Your task to perform on an android device: Open CNN.com Image 0: 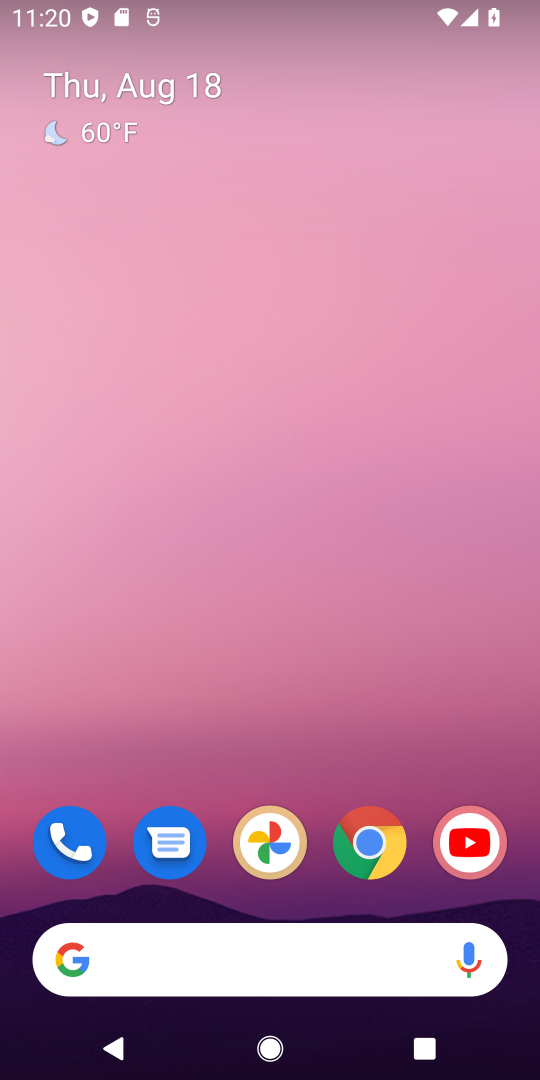
Step 0: click (234, 919)
Your task to perform on an android device: Open CNN.com Image 1: 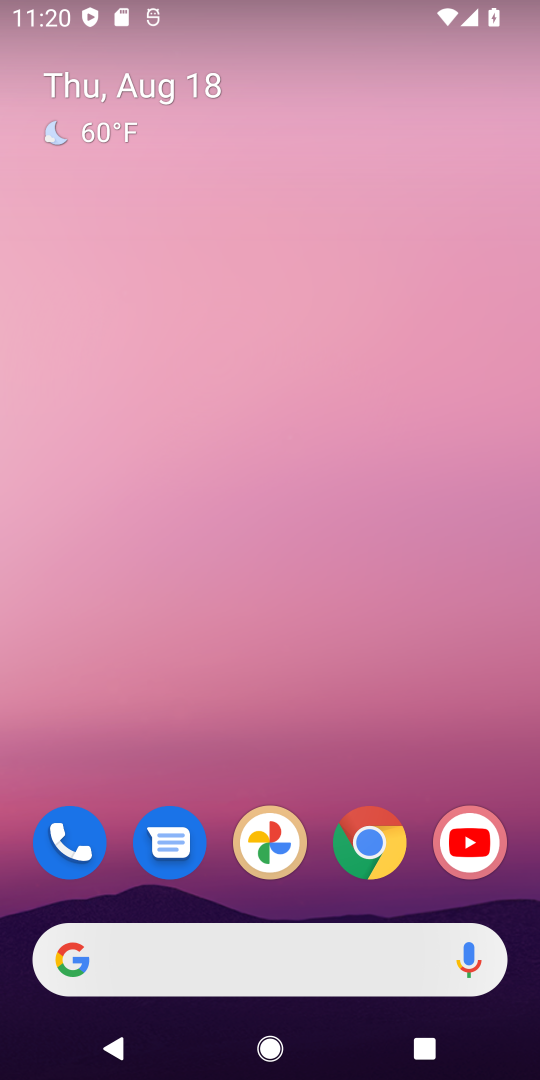
Step 1: click (232, 978)
Your task to perform on an android device: Open CNN.com Image 2: 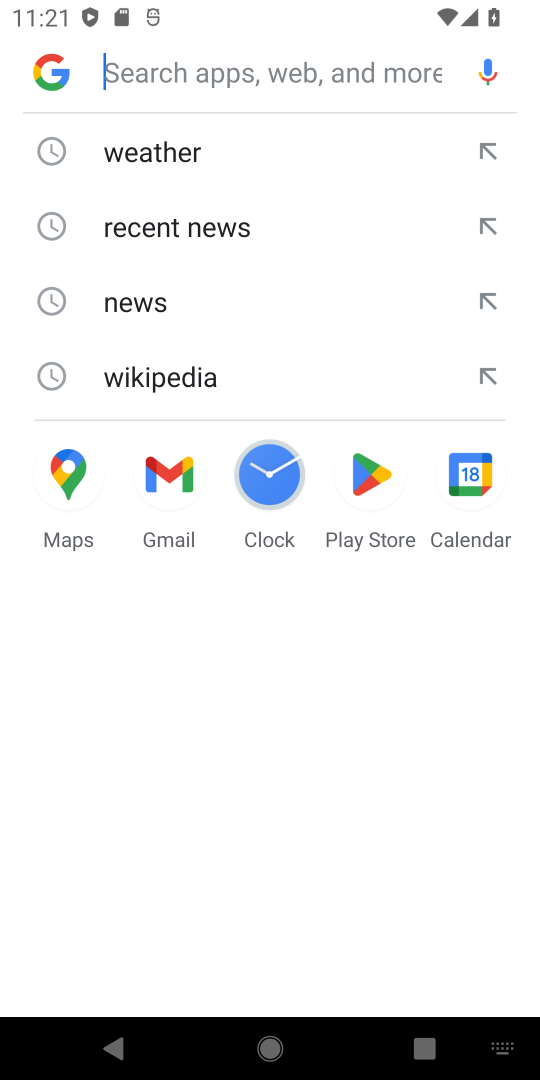
Step 2: type "cnn"
Your task to perform on an android device: Open CNN.com Image 3: 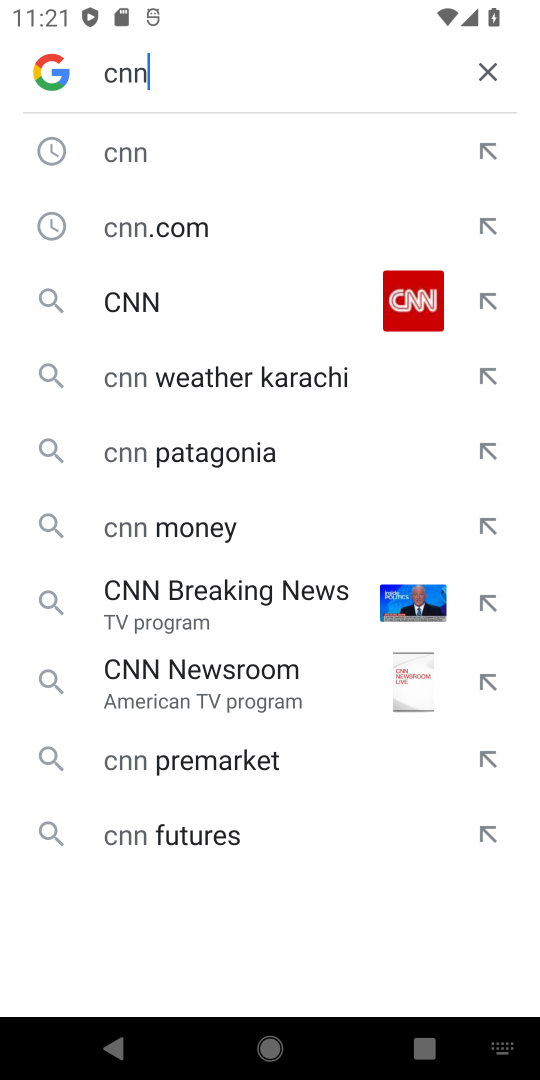
Step 3: type ""
Your task to perform on an android device: Open CNN.com Image 4: 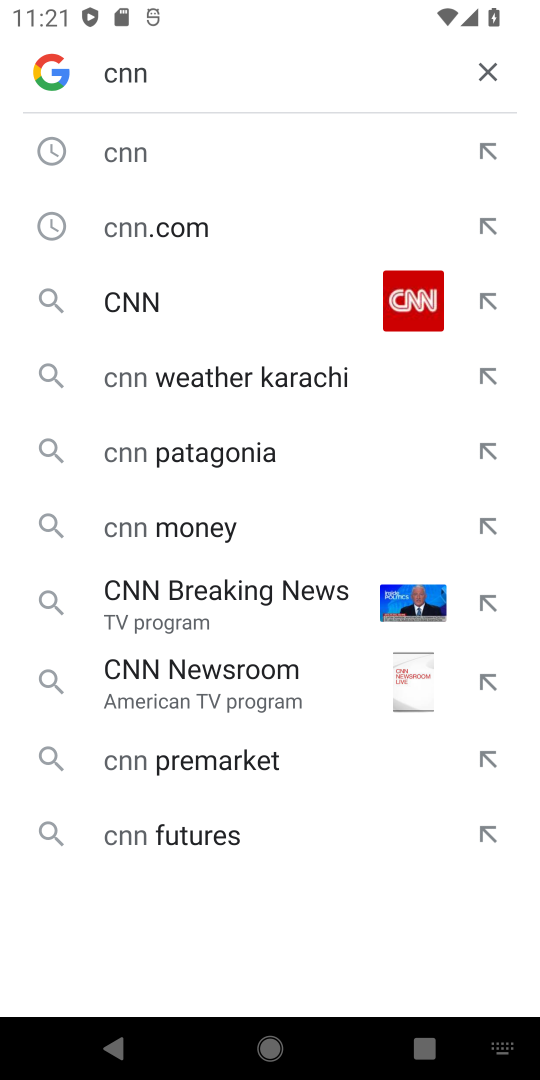
Step 4: click (355, 311)
Your task to perform on an android device: Open CNN.com Image 5: 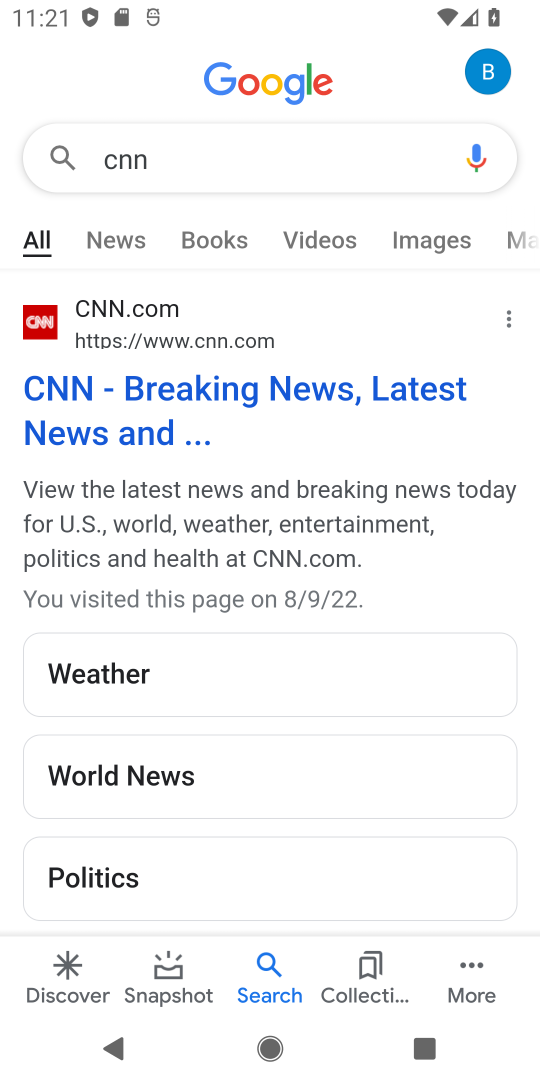
Step 5: click (151, 380)
Your task to perform on an android device: Open CNN.com Image 6: 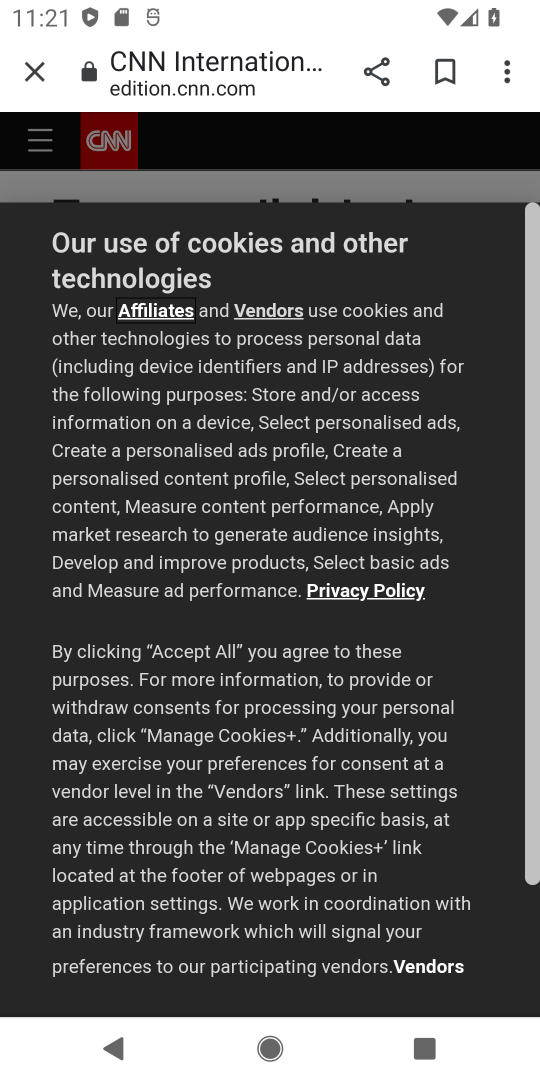
Step 6: task complete